Your task to perform on an android device: Open Reddit.com Image 0: 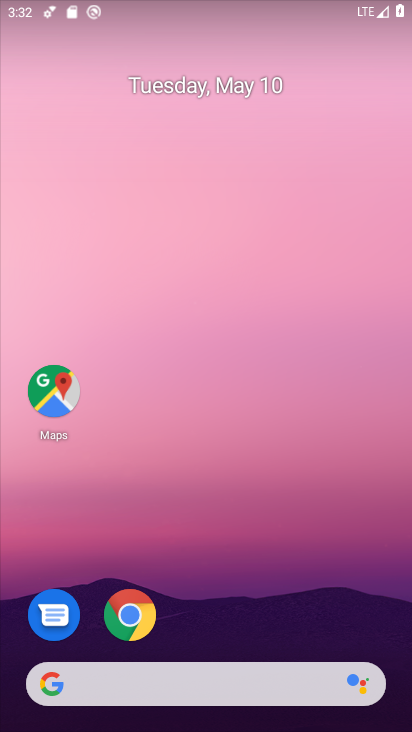
Step 0: drag from (225, 614) to (198, 80)
Your task to perform on an android device: Open Reddit.com Image 1: 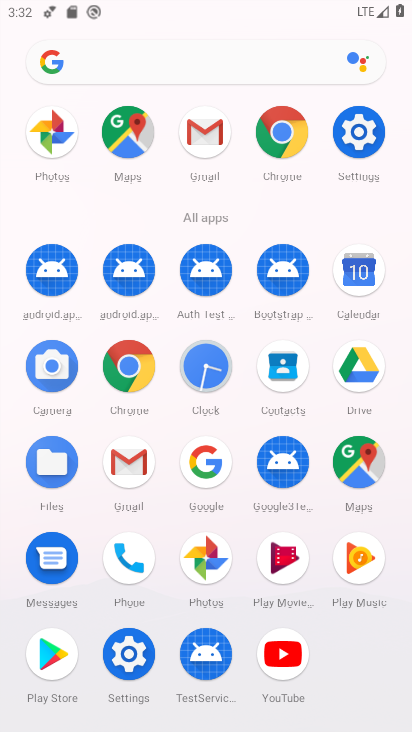
Step 1: click (274, 131)
Your task to perform on an android device: Open Reddit.com Image 2: 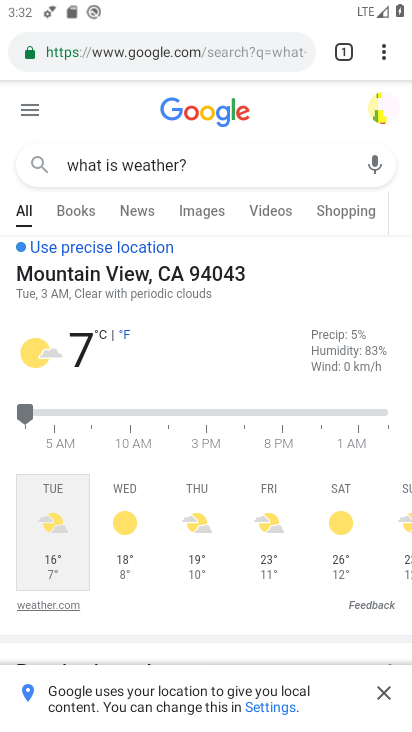
Step 2: click (301, 45)
Your task to perform on an android device: Open Reddit.com Image 3: 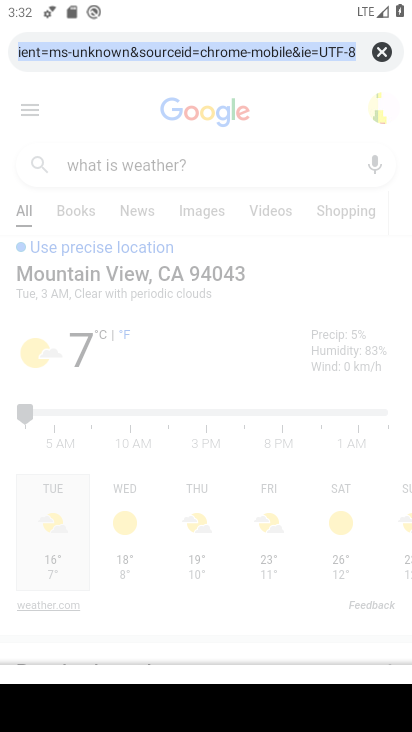
Step 3: click (388, 48)
Your task to perform on an android device: Open Reddit.com Image 4: 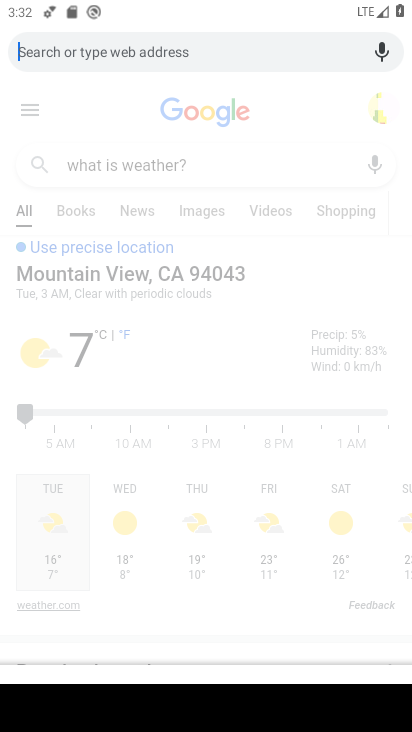
Step 4: type "reddit.com"
Your task to perform on an android device: Open Reddit.com Image 5: 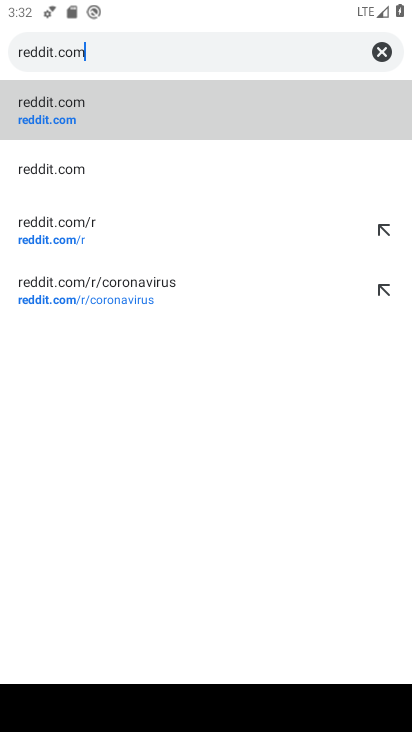
Step 5: click (223, 106)
Your task to perform on an android device: Open Reddit.com Image 6: 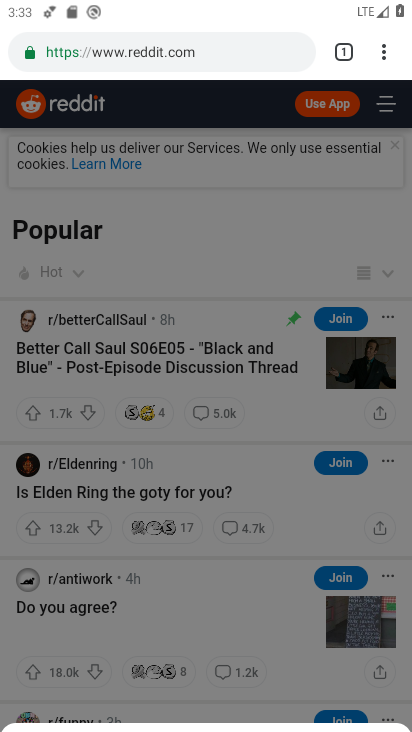
Step 6: task complete